Your task to perform on an android device: Show me productivity apps on the Play Store Image 0: 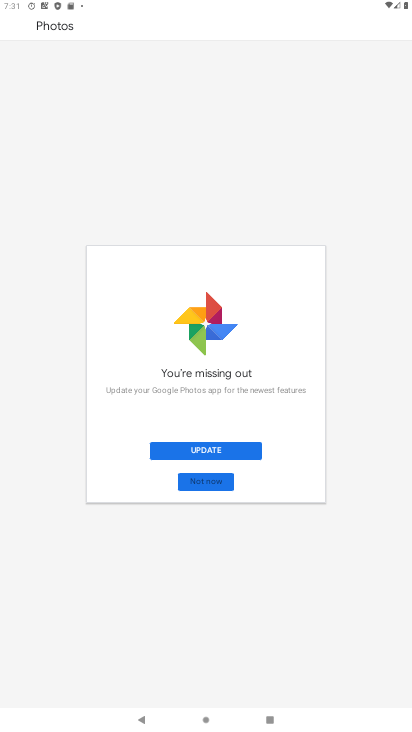
Step 0: press home button
Your task to perform on an android device: Show me productivity apps on the Play Store Image 1: 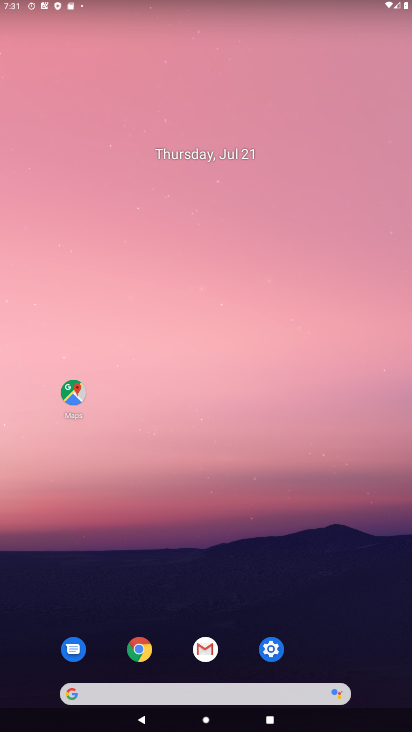
Step 1: drag from (243, 711) to (188, 95)
Your task to perform on an android device: Show me productivity apps on the Play Store Image 2: 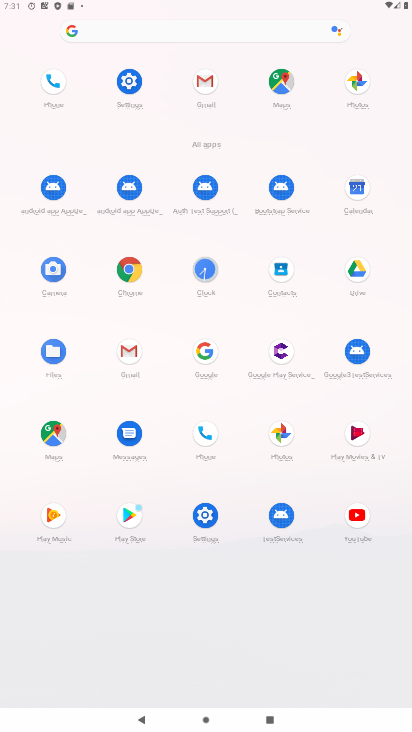
Step 2: click (134, 342)
Your task to perform on an android device: Show me productivity apps on the Play Store Image 3: 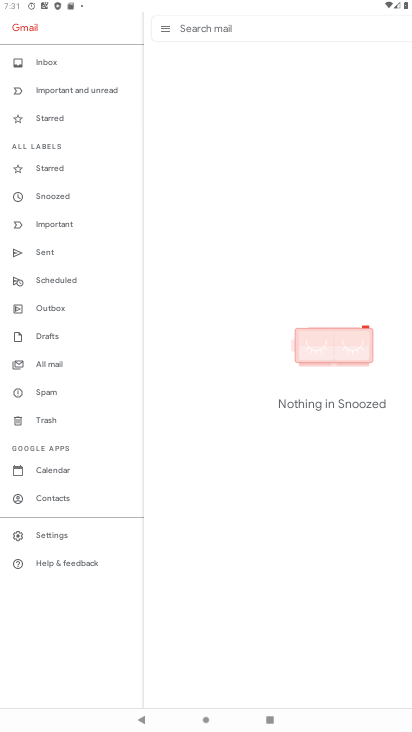
Step 3: press home button
Your task to perform on an android device: Show me productivity apps on the Play Store Image 4: 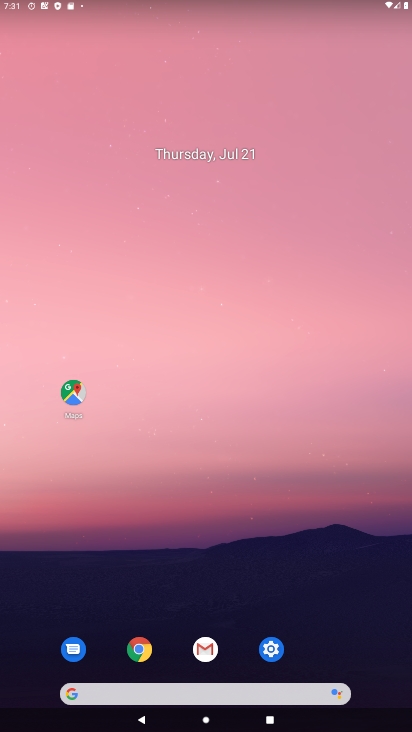
Step 4: drag from (261, 696) to (275, 145)
Your task to perform on an android device: Show me productivity apps on the Play Store Image 5: 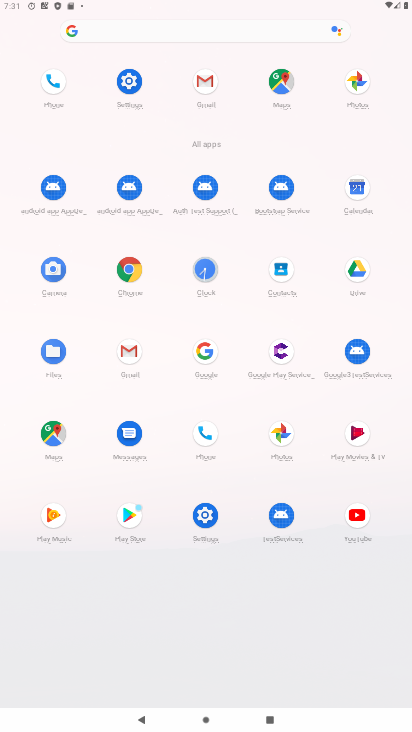
Step 5: click (139, 510)
Your task to perform on an android device: Show me productivity apps on the Play Store Image 6: 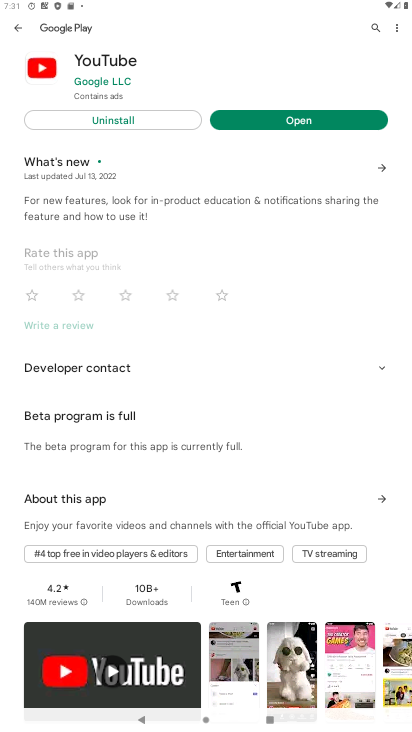
Step 6: click (379, 30)
Your task to perform on an android device: Show me productivity apps on the Play Store Image 7: 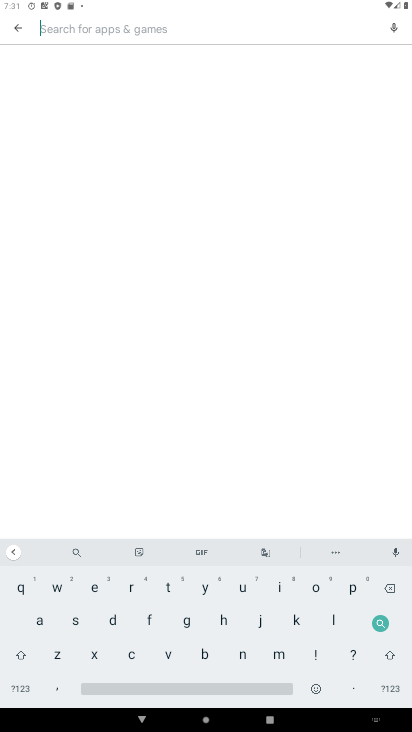
Step 7: click (353, 586)
Your task to perform on an android device: Show me productivity apps on the Play Store Image 8: 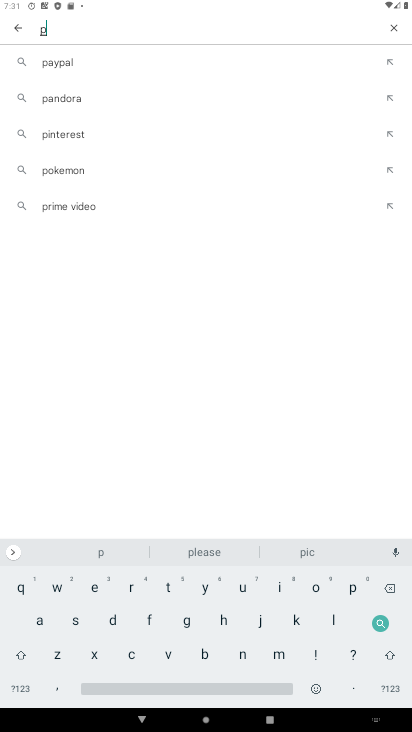
Step 8: click (128, 583)
Your task to perform on an android device: Show me productivity apps on the Play Store Image 9: 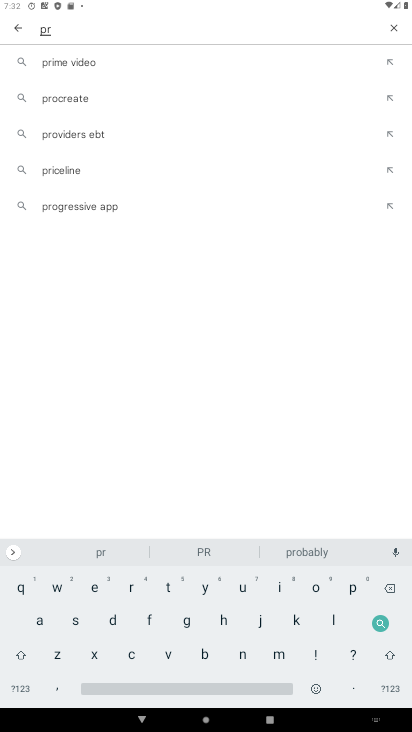
Step 9: click (319, 588)
Your task to perform on an android device: Show me productivity apps on the Play Store Image 10: 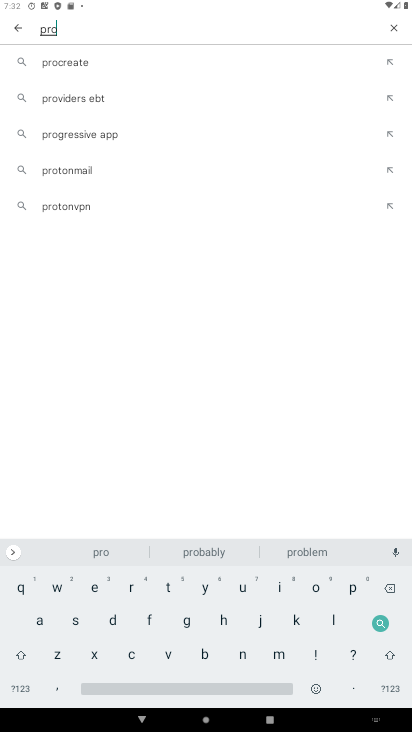
Step 10: click (114, 620)
Your task to perform on an android device: Show me productivity apps on the Play Store Image 11: 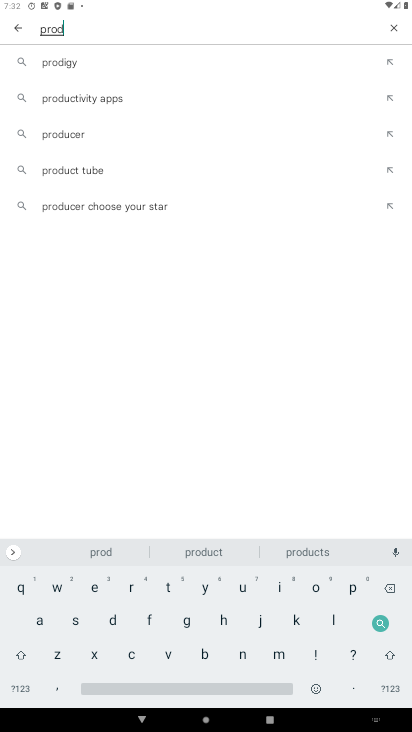
Step 11: click (113, 102)
Your task to perform on an android device: Show me productivity apps on the Play Store Image 12: 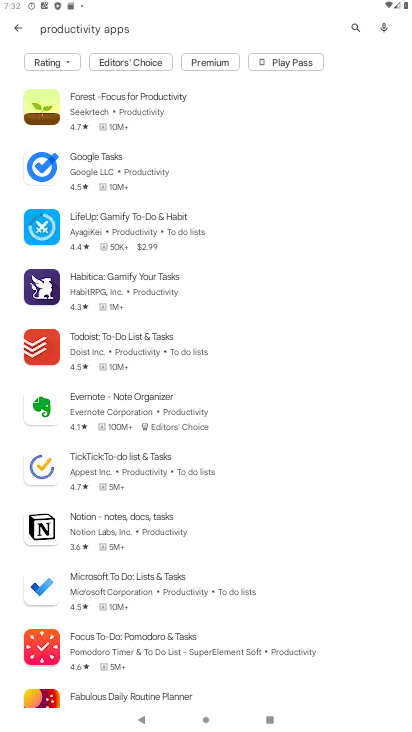
Step 12: task complete